Your task to perform on an android device: see creations saved in the google photos Image 0: 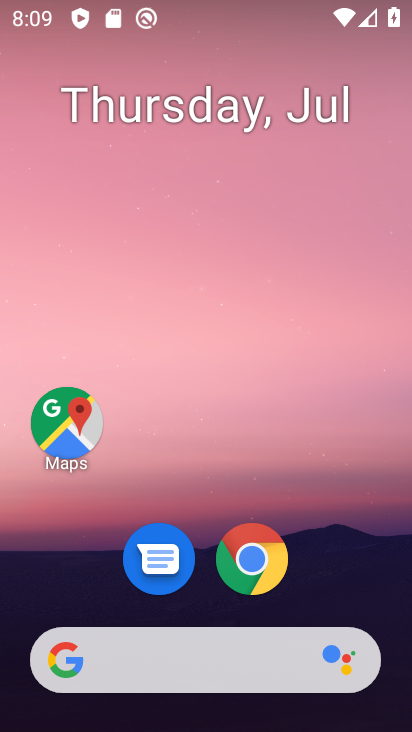
Step 0: drag from (306, 140) to (315, 0)
Your task to perform on an android device: see creations saved in the google photos Image 1: 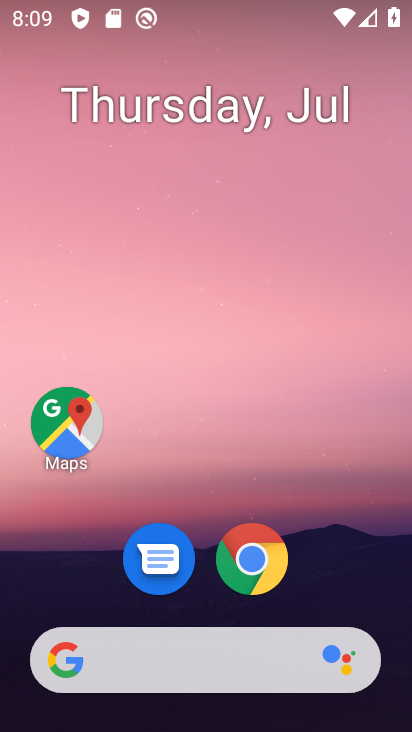
Step 1: drag from (87, 569) to (235, 5)
Your task to perform on an android device: see creations saved in the google photos Image 2: 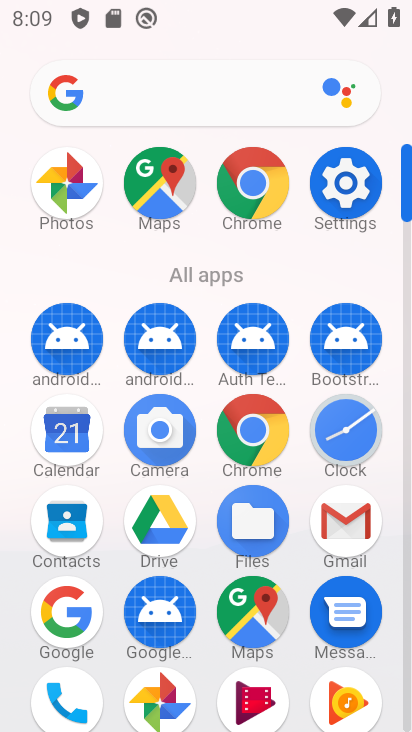
Step 2: click (155, 686)
Your task to perform on an android device: see creations saved in the google photos Image 3: 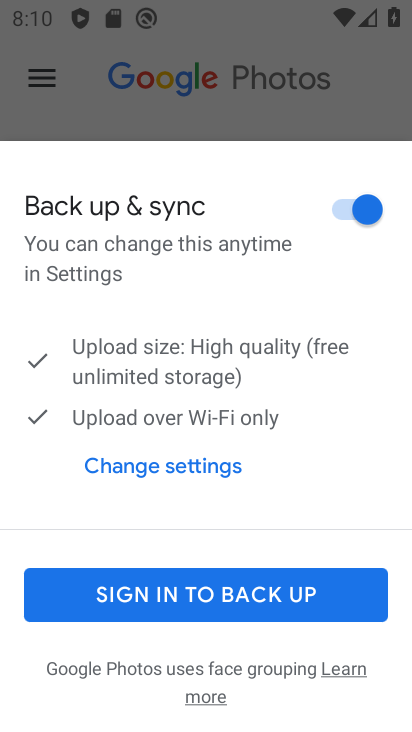
Step 3: click (208, 592)
Your task to perform on an android device: see creations saved in the google photos Image 4: 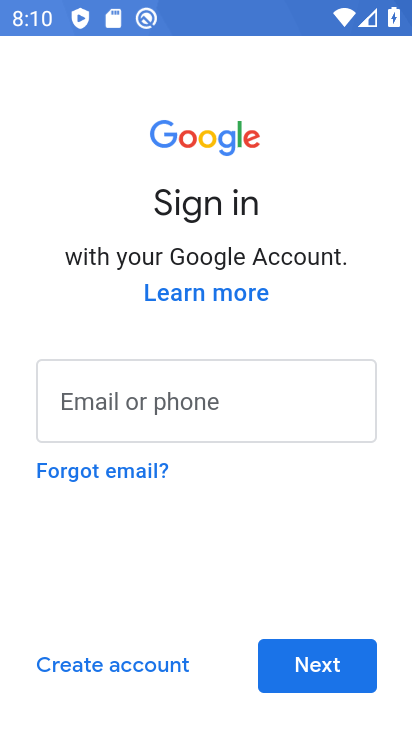
Step 4: press back button
Your task to perform on an android device: see creations saved in the google photos Image 5: 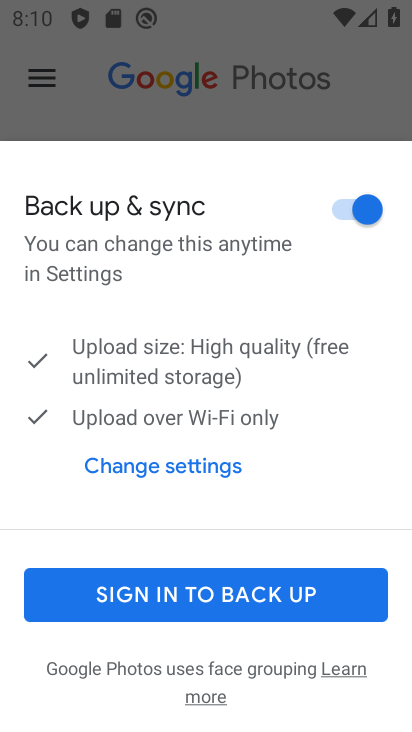
Step 5: press back button
Your task to perform on an android device: see creations saved in the google photos Image 6: 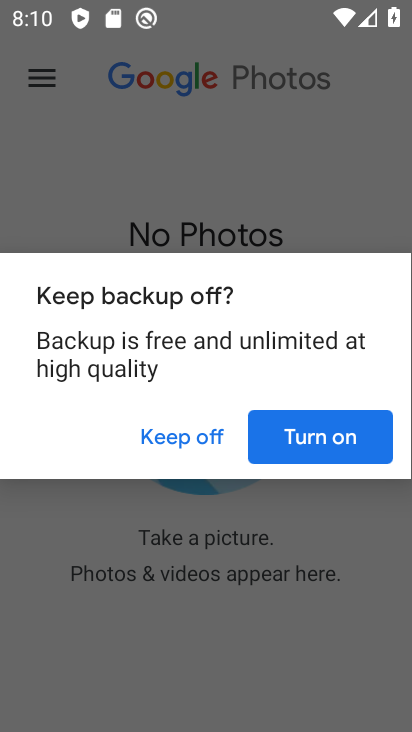
Step 6: click (213, 437)
Your task to perform on an android device: see creations saved in the google photos Image 7: 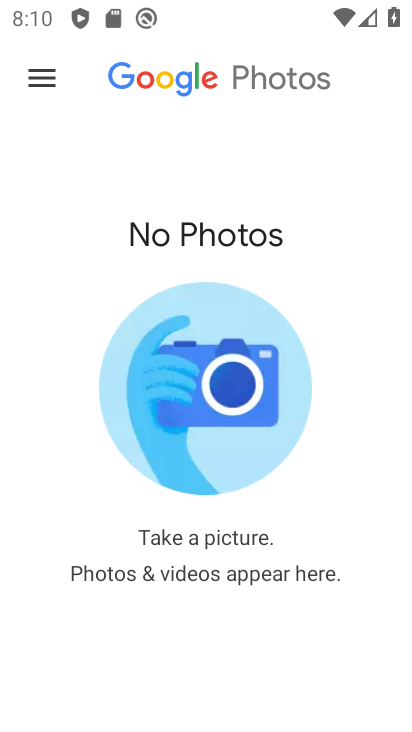
Step 7: click (34, 78)
Your task to perform on an android device: see creations saved in the google photos Image 8: 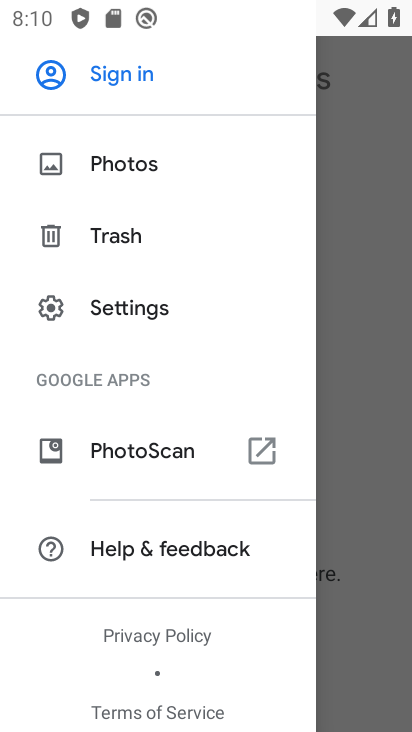
Step 8: task complete